Your task to perform on an android device: Search for Italian restaurants on Maps Image 0: 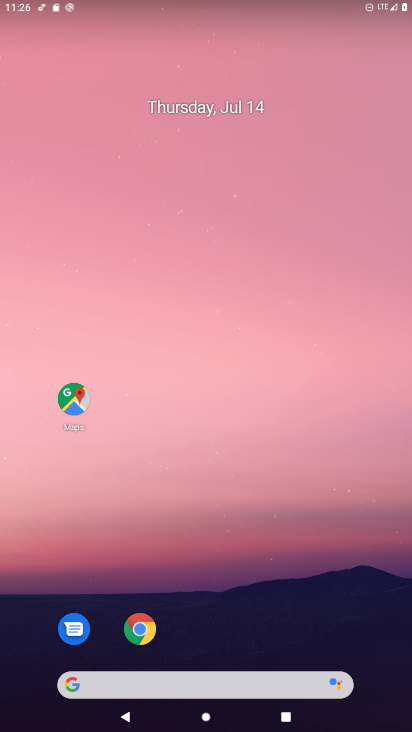
Step 0: drag from (204, 632) to (255, 251)
Your task to perform on an android device: Search for Italian restaurants on Maps Image 1: 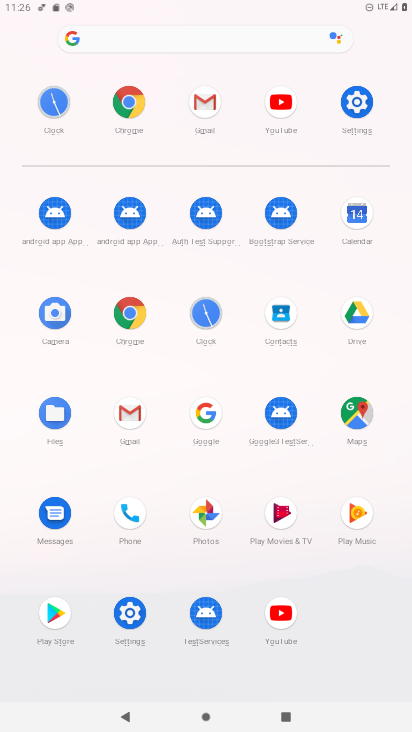
Step 1: click (365, 426)
Your task to perform on an android device: Search for Italian restaurants on Maps Image 2: 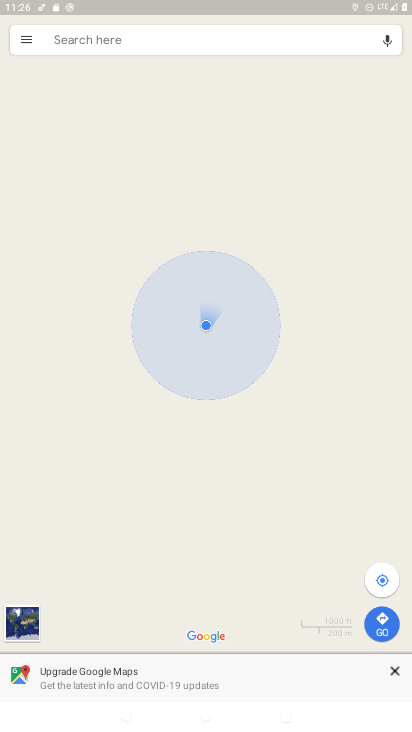
Step 2: click (196, 50)
Your task to perform on an android device: Search for Italian restaurants on Maps Image 3: 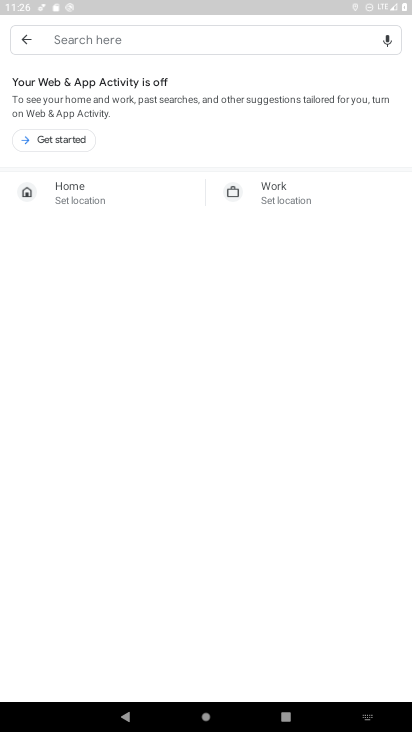
Step 3: click (186, 46)
Your task to perform on an android device: Search for Italian restaurants on Maps Image 4: 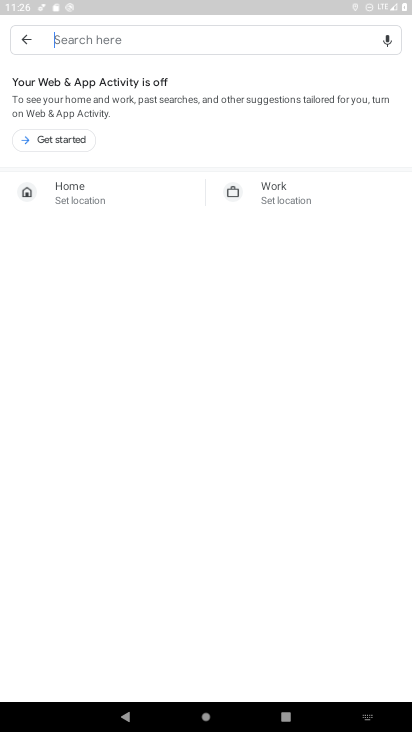
Step 4: type "italian"
Your task to perform on an android device: Search for Italian restaurants on Maps Image 5: 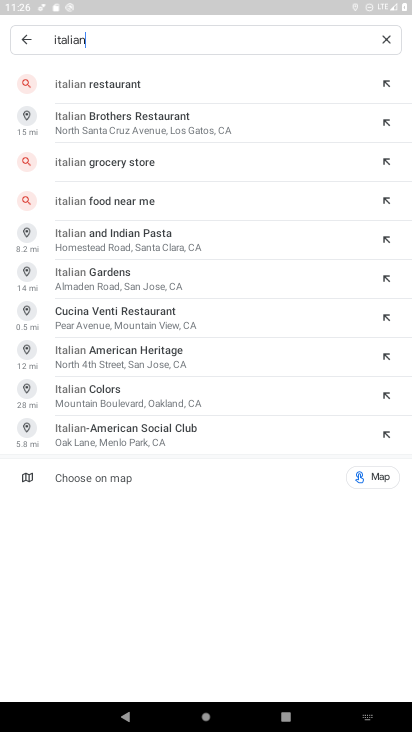
Step 5: click (173, 86)
Your task to perform on an android device: Search for Italian restaurants on Maps Image 6: 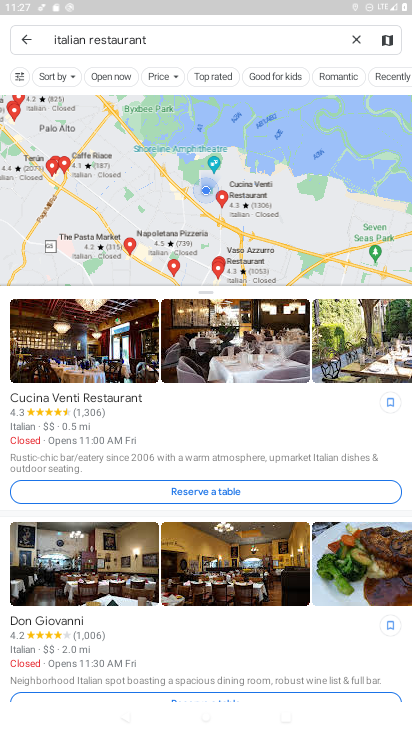
Step 6: task complete